Your task to perform on an android device: refresh tabs in the chrome app Image 0: 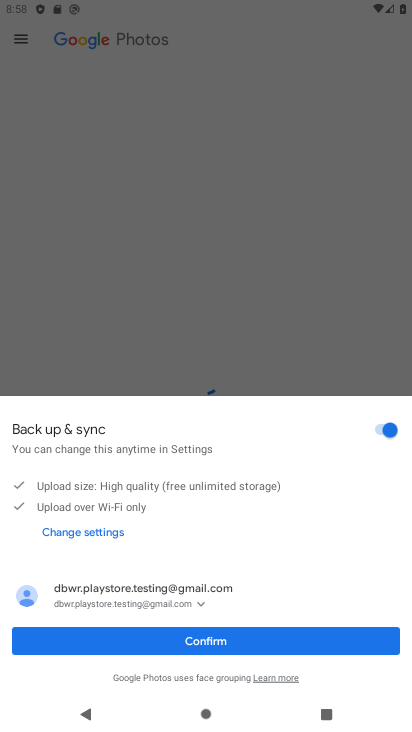
Step 0: press home button
Your task to perform on an android device: refresh tabs in the chrome app Image 1: 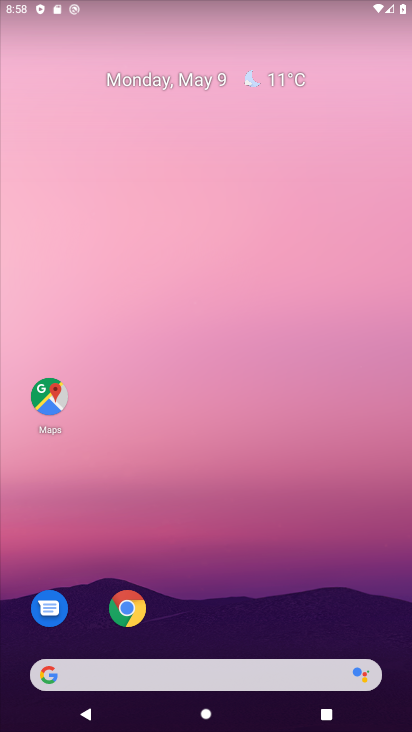
Step 1: click (122, 600)
Your task to perform on an android device: refresh tabs in the chrome app Image 2: 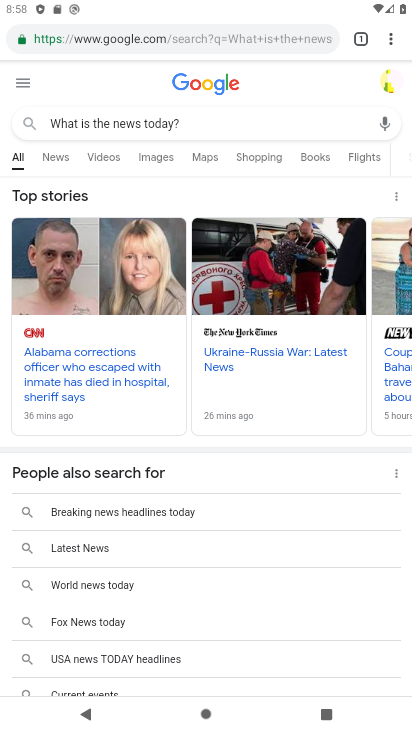
Step 2: click (391, 38)
Your task to perform on an android device: refresh tabs in the chrome app Image 3: 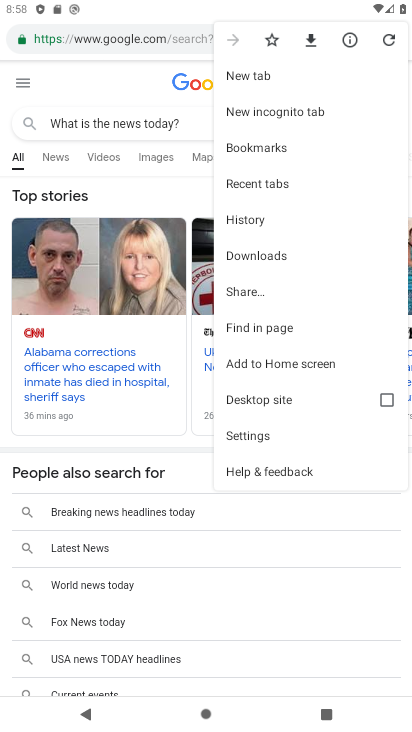
Step 3: click (394, 33)
Your task to perform on an android device: refresh tabs in the chrome app Image 4: 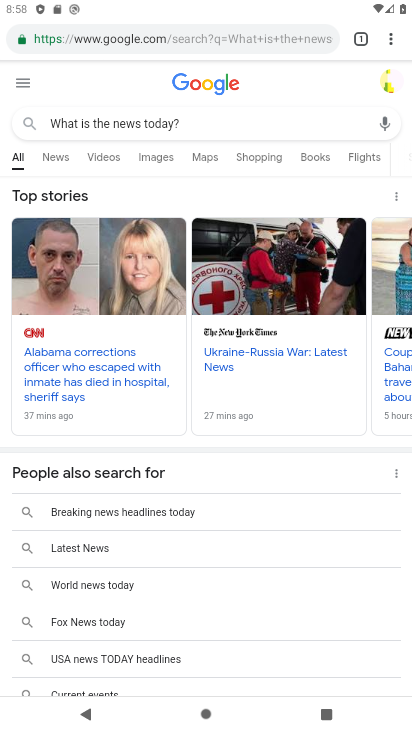
Step 4: task complete